Your task to perform on an android device: toggle priority inbox in the gmail app Image 0: 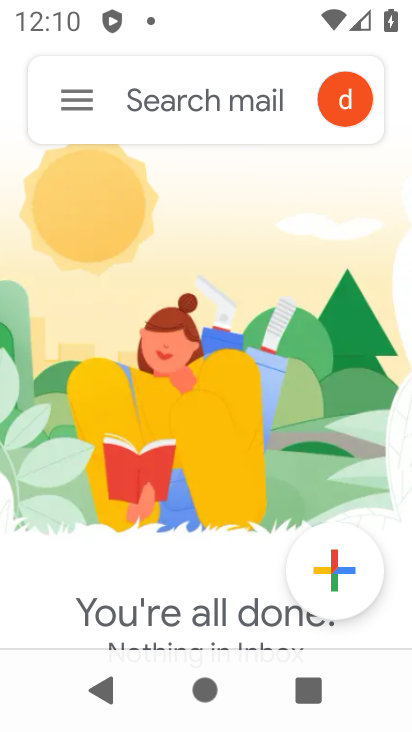
Step 0: press back button
Your task to perform on an android device: toggle priority inbox in the gmail app Image 1: 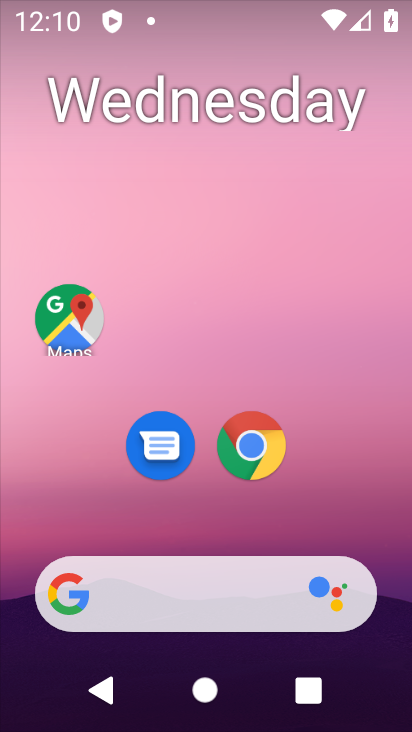
Step 1: drag from (293, 509) to (287, 95)
Your task to perform on an android device: toggle priority inbox in the gmail app Image 2: 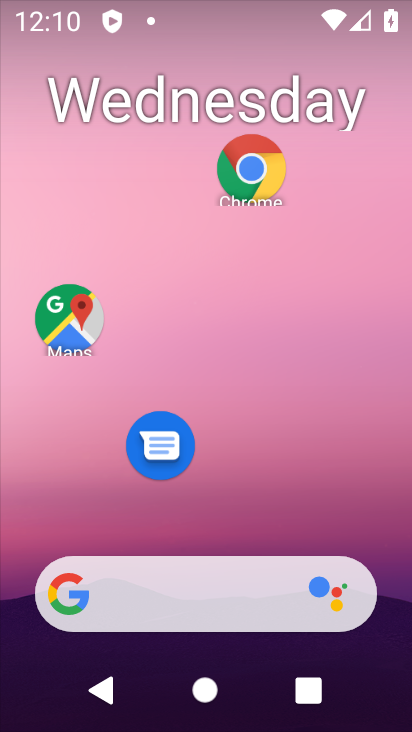
Step 2: drag from (224, 486) to (242, 137)
Your task to perform on an android device: toggle priority inbox in the gmail app Image 3: 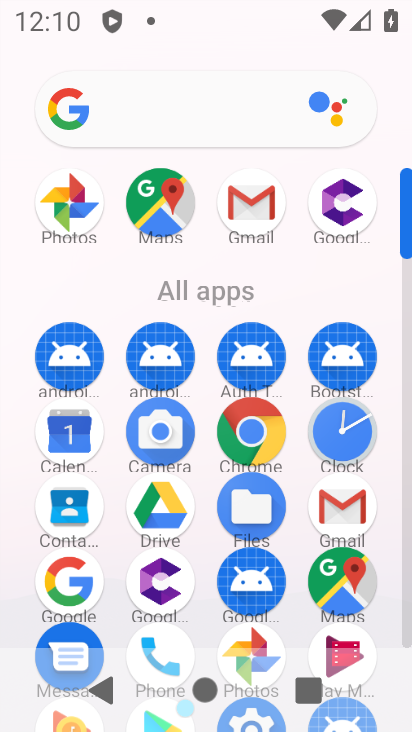
Step 3: click (250, 216)
Your task to perform on an android device: toggle priority inbox in the gmail app Image 4: 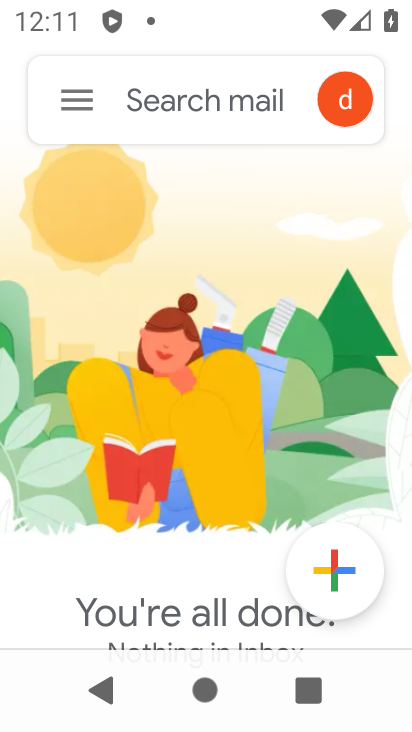
Step 4: click (81, 119)
Your task to perform on an android device: toggle priority inbox in the gmail app Image 5: 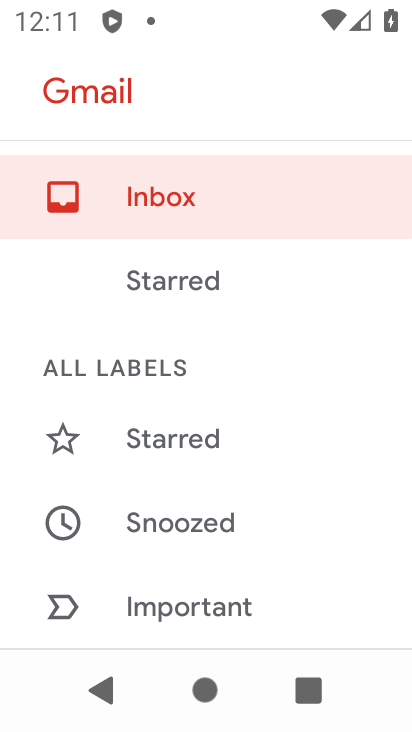
Step 5: drag from (155, 558) to (210, 257)
Your task to perform on an android device: toggle priority inbox in the gmail app Image 6: 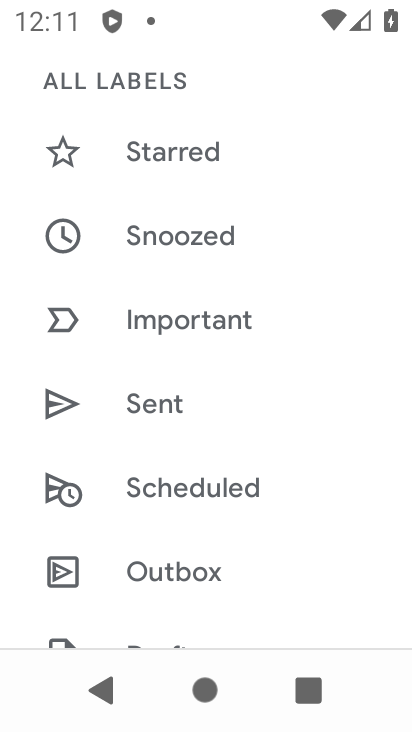
Step 6: drag from (163, 578) to (183, 292)
Your task to perform on an android device: toggle priority inbox in the gmail app Image 7: 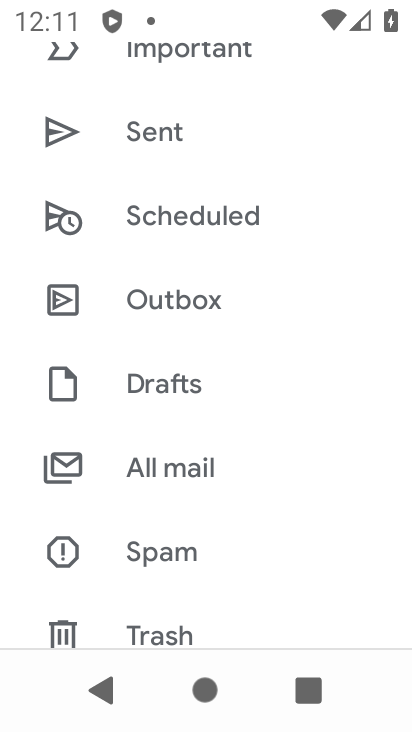
Step 7: drag from (171, 588) to (175, 347)
Your task to perform on an android device: toggle priority inbox in the gmail app Image 8: 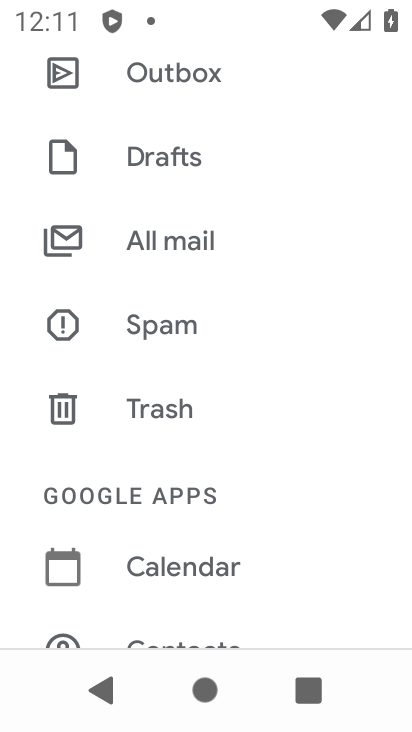
Step 8: drag from (187, 579) to (196, 314)
Your task to perform on an android device: toggle priority inbox in the gmail app Image 9: 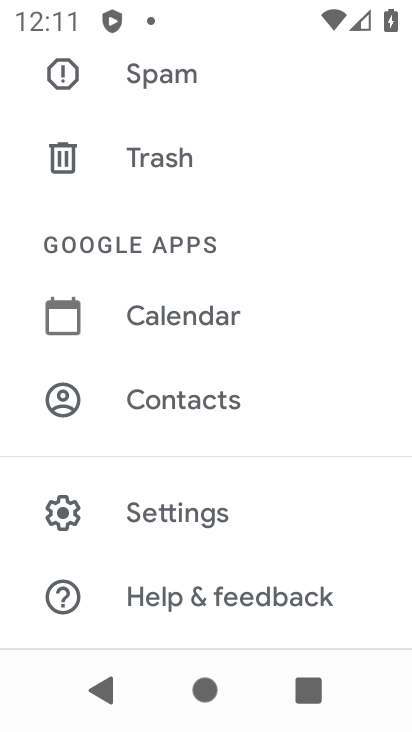
Step 9: drag from (186, 556) to (216, 411)
Your task to perform on an android device: toggle priority inbox in the gmail app Image 10: 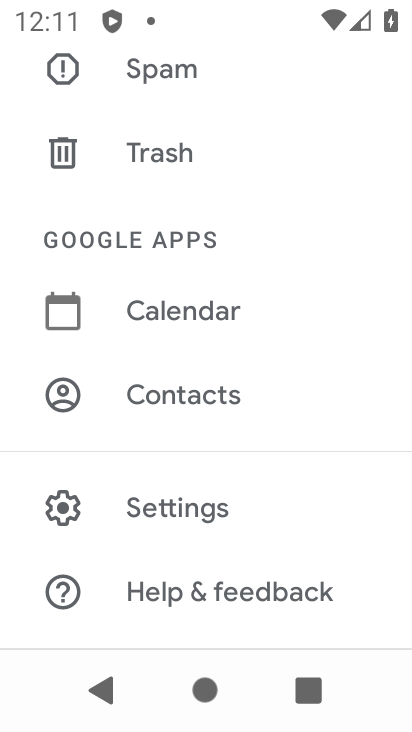
Step 10: click (174, 509)
Your task to perform on an android device: toggle priority inbox in the gmail app Image 11: 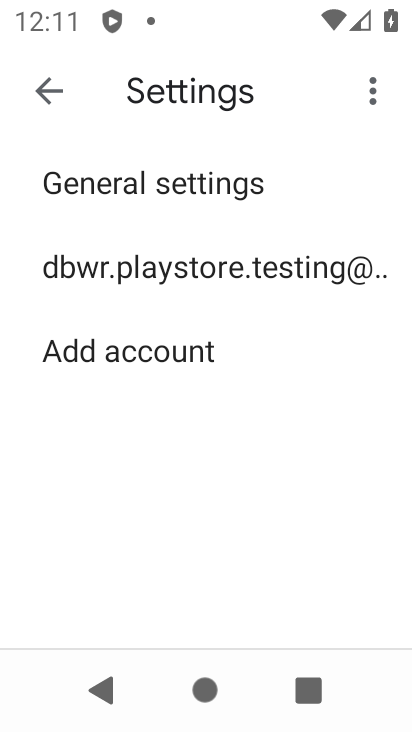
Step 11: click (172, 282)
Your task to perform on an android device: toggle priority inbox in the gmail app Image 12: 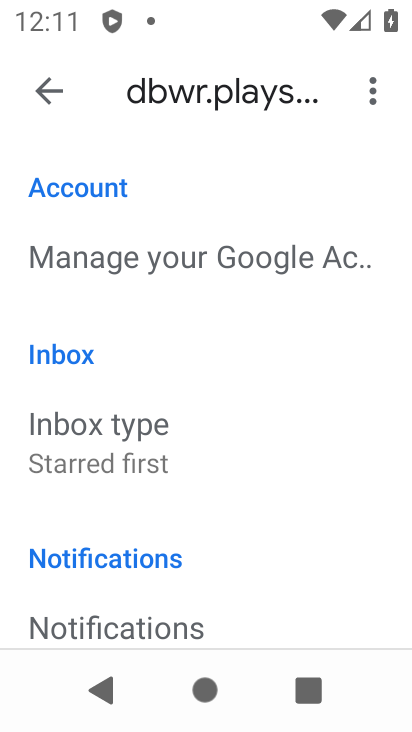
Step 12: click (74, 459)
Your task to perform on an android device: toggle priority inbox in the gmail app Image 13: 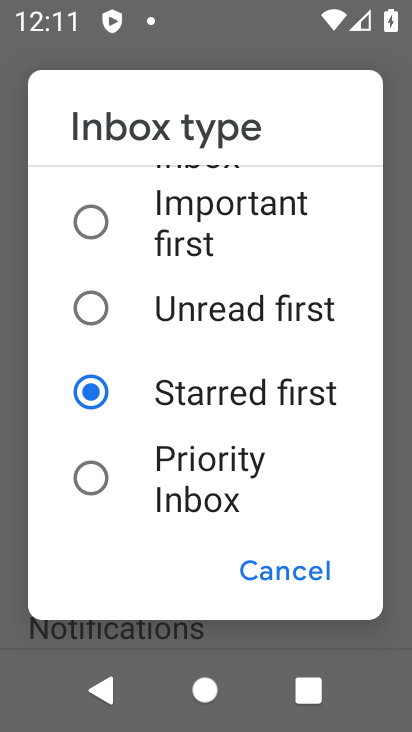
Step 13: click (97, 495)
Your task to perform on an android device: toggle priority inbox in the gmail app Image 14: 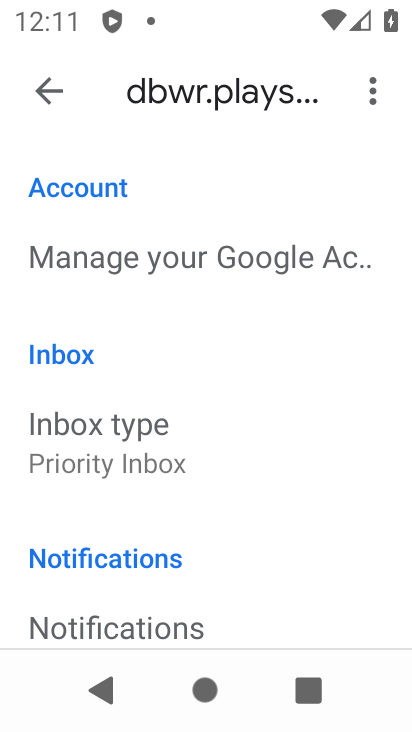
Step 14: task complete